Your task to perform on an android device: empty trash in google photos Image 0: 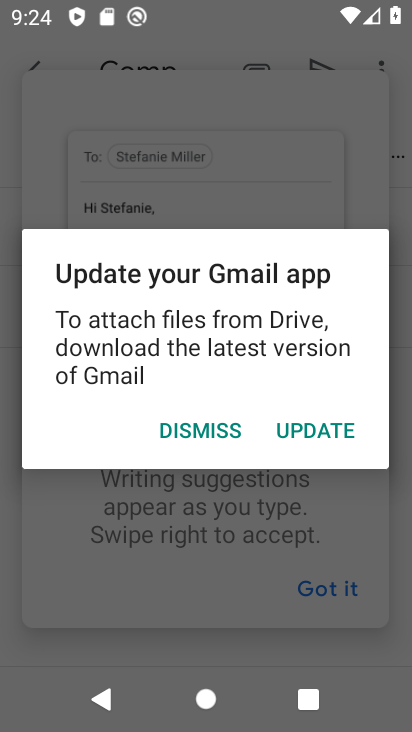
Step 0: press home button
Your task to perform on an android device: empty trash in google photos Image 1: 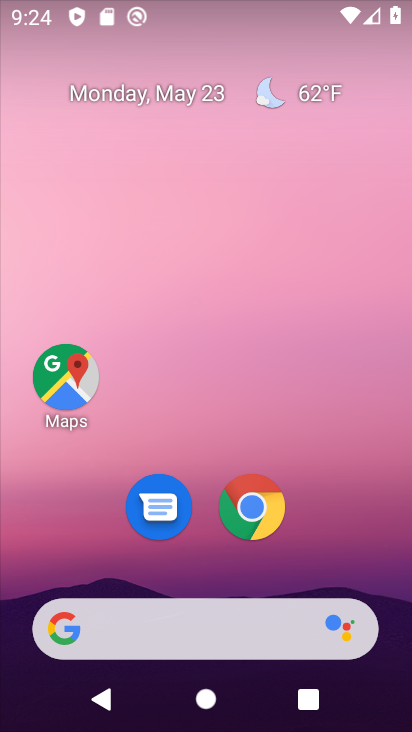
Step 1: drag from (319, 524) to (244, 187)
Your task to perform on an android device: empty trash in google photos Image 2: 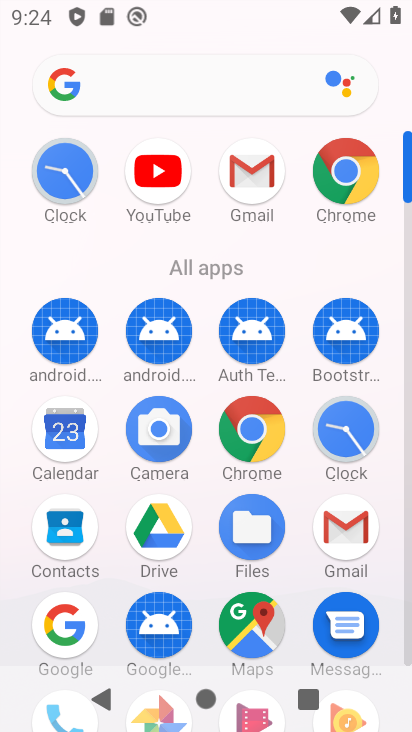
Step 2: drag from (296, 527) to (334, 361)
Your task to perform on an android device: empty trash in google photos Image 3: 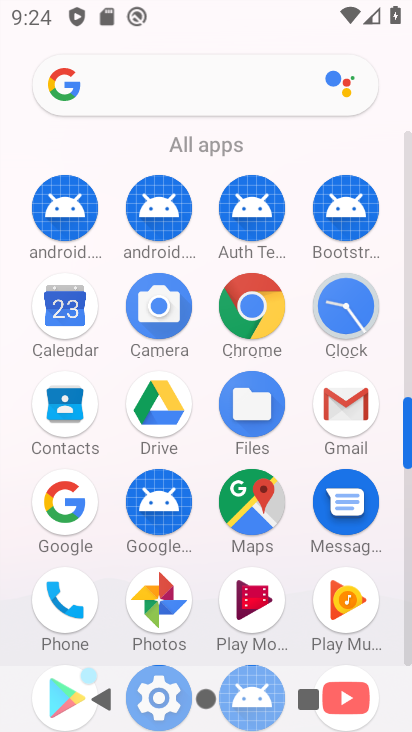
Step 3: click (160, 598)
Your task to perform on an android device: empty trash in google photos Image 4: 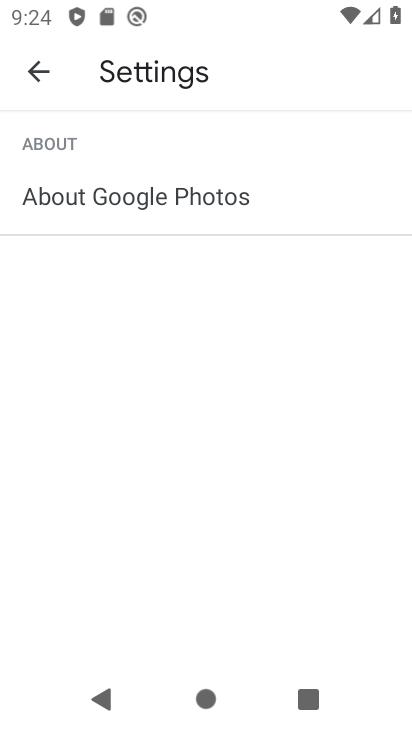
Step 4: click (53, 68)
Your task to perform on an android device: empty trash in google photos Image 5: 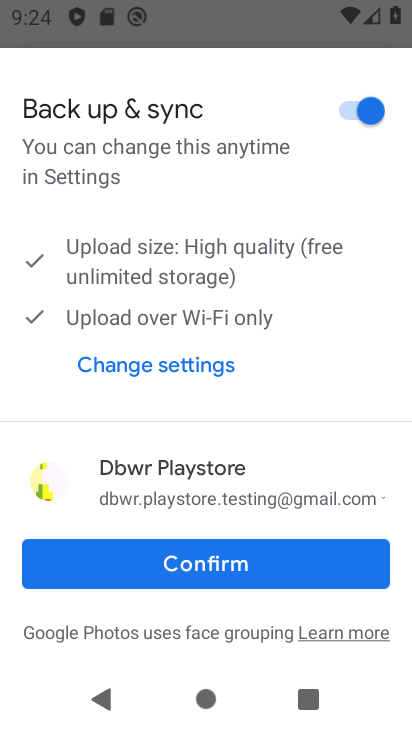
Step 5: click (199, 554)
Your task to perform on an android device: empty trash in google photos Image 6: 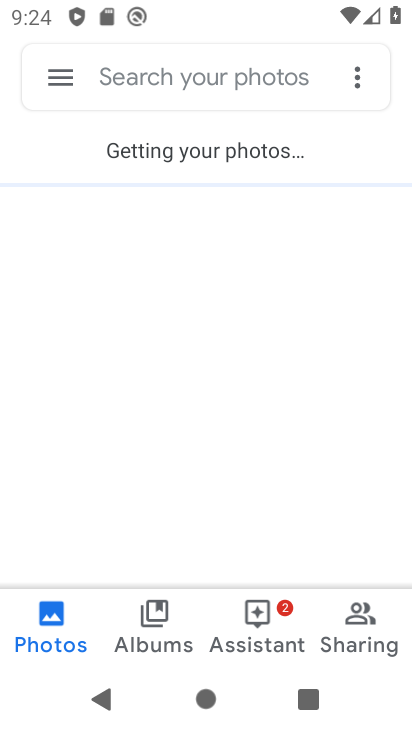
Step 6: click (63, 74)
Your task to perform on an android device: empty trash in google photos Image 7: 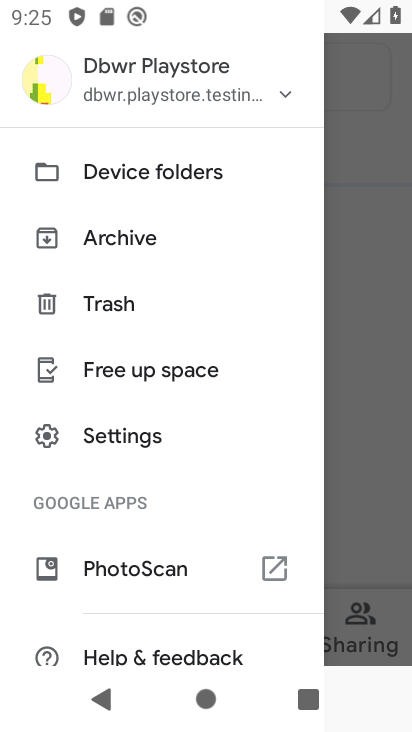
Step 7: click (117, 308)
Your task to perform on an android device: empty trash in google photos Image 8: 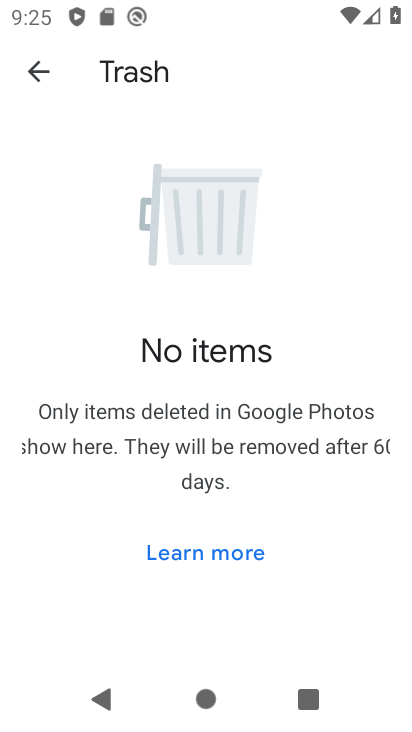
Step 8: task complete